Your task to perform on an android device: open app "Roku - Official Remote Control" (install if not already installed) Image 0: 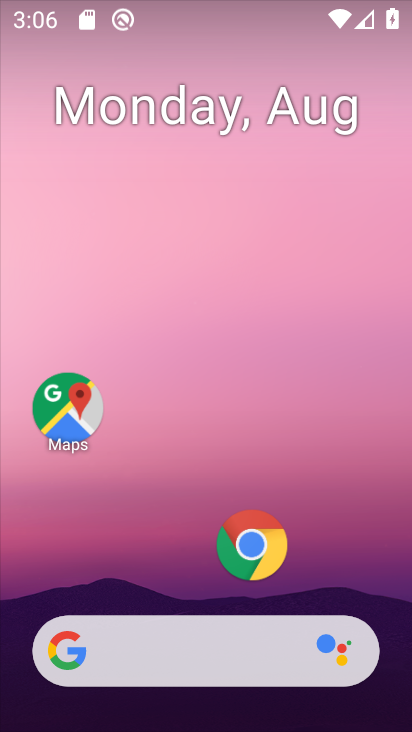
Step 0: drag from (127, 559) to (199, 86)
Your task to perform on an android device: open app "Roku - Official Remote Control" (install if not already installed) Image 1: 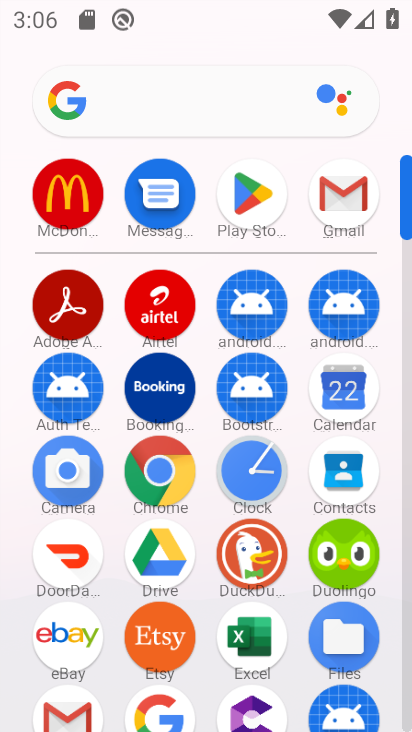
Step 1: click (258, 193)
Your task to perform on an android device: open app "Roku - Official Remote Control" (install if not already installed) Image 2: 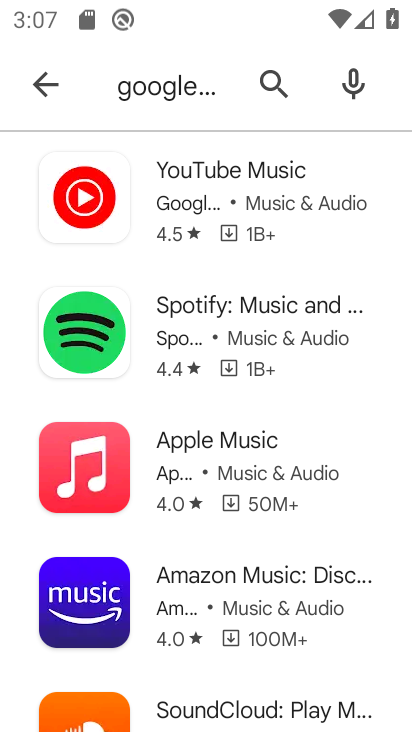
Step 2: press home button
Your task to perform on an android device: open app "Roku - Official Remote Control" (install if not already installed) Image 3: 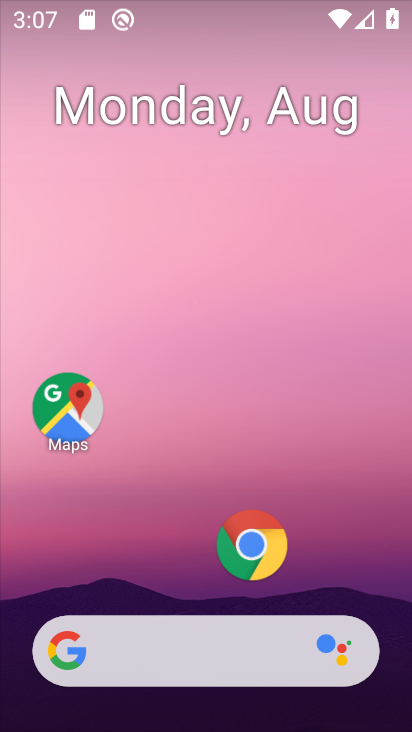
Step 3: drag from (127, 571) to (271, 36)
Your task to perform on an android device: open app "Roku - Official Remote Control" (install if not already installed) Image 4: 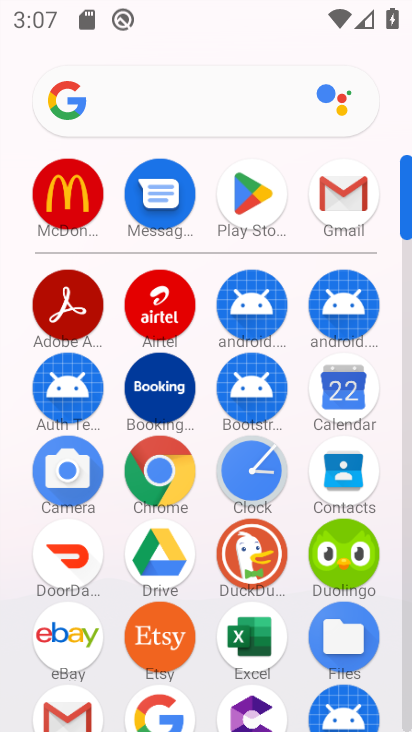
Step 4: click (268, 184)
Your task to perform on an android device: open app "Roku - Official Remote Control" (install if not already installed) Image 5: 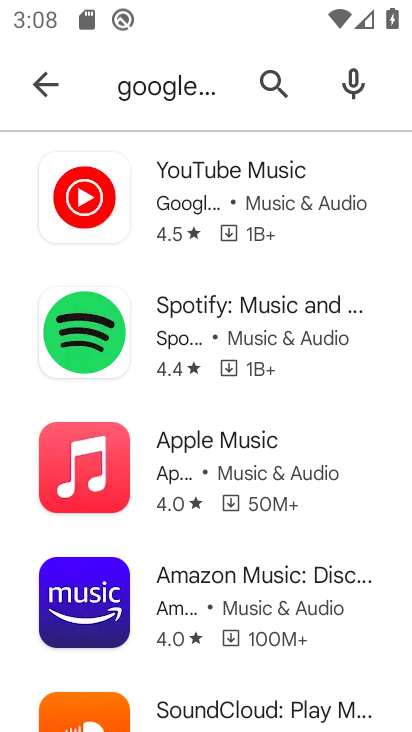
Step 5: click (278, 61)
Your task to perform on an android device: open app "Roku - Official Remote Control" (install if not already installed) Image 6: 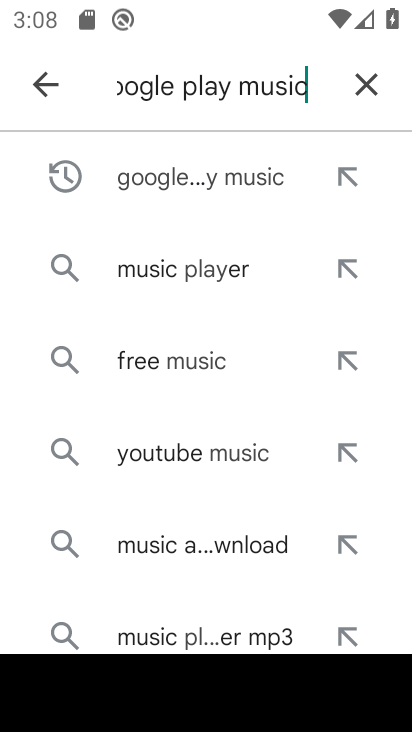
Step 6: click (362, 82)
Your task to perform on an android device: open app "Roku - Official Remote Control" (install if not already installed) Image 7: 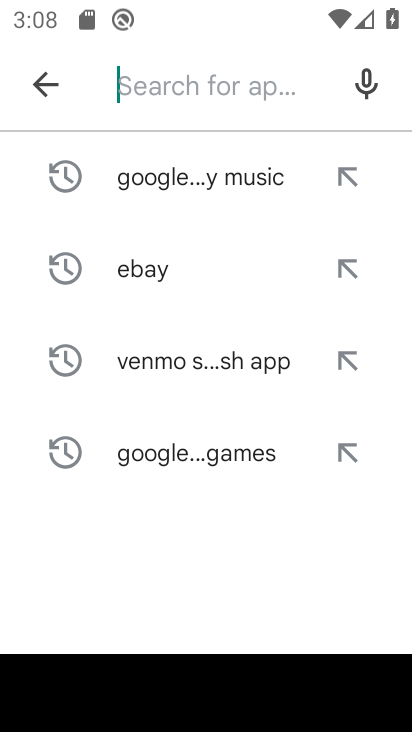
Step 7: click (219, 88)
Your task to perform on an android device: open app "Roku - Official Remote Control" (install if not already installed) Image 8: 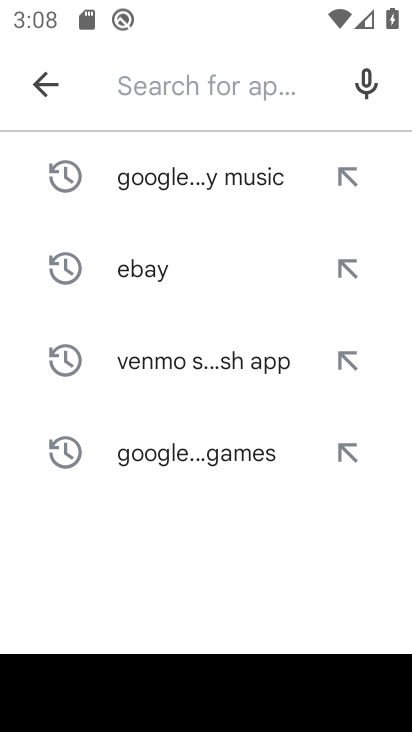
Step 8: type "roku"
Your task to perform on an android device: open app "Roku - Official Remote Control" (install if not already installed) Image 9: 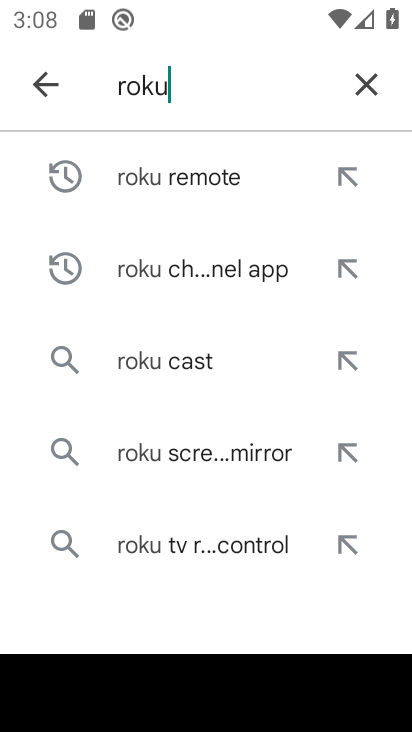
Step 9: click (120, 173)
Your task to perform on an android device: open app "Roku - Official Remote Control" (install if not already installed) Image 10: 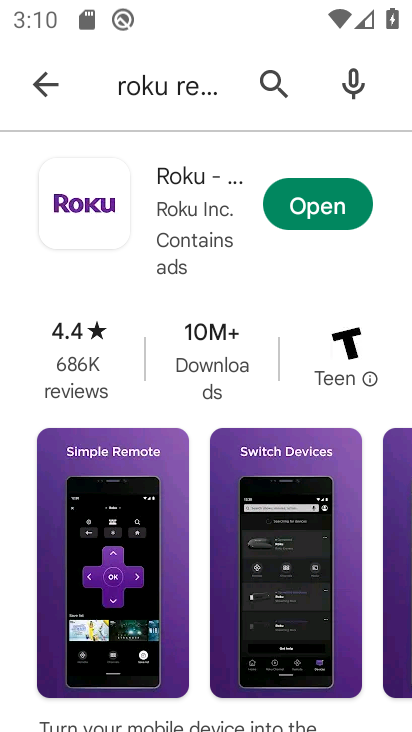
Step 10: click (312, 198)
Your task to perform on an android device: open app "Roku - Official Remote Control" (install if not already installed) Image 11: 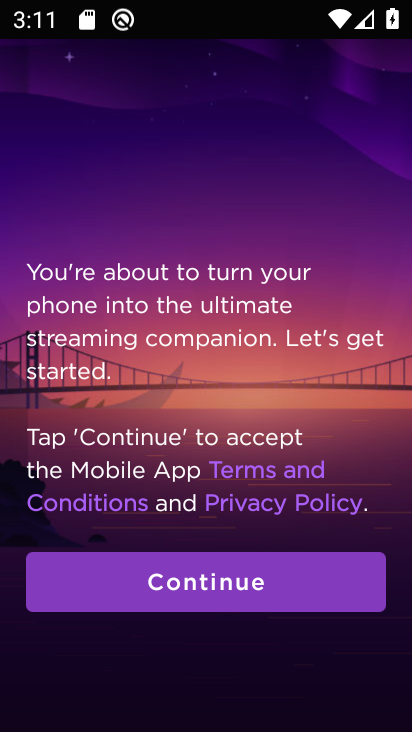
Step 11: task complete